Your task to perform on an android device: turn on bluetooth scan Image 0: 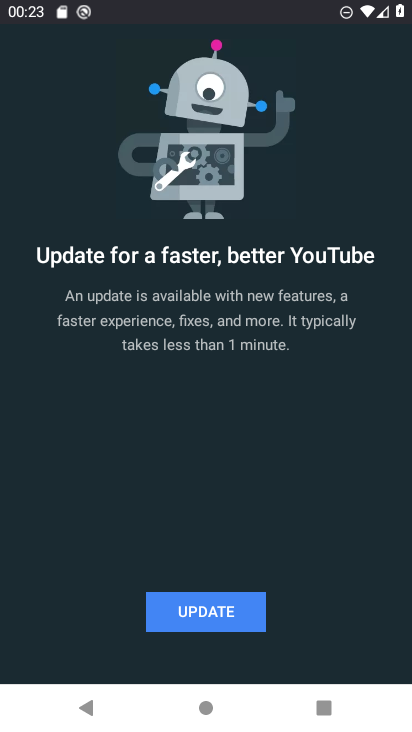
Step 0: press home button
Your task to perform on an android device: turn on bluetooth scan Image 1: 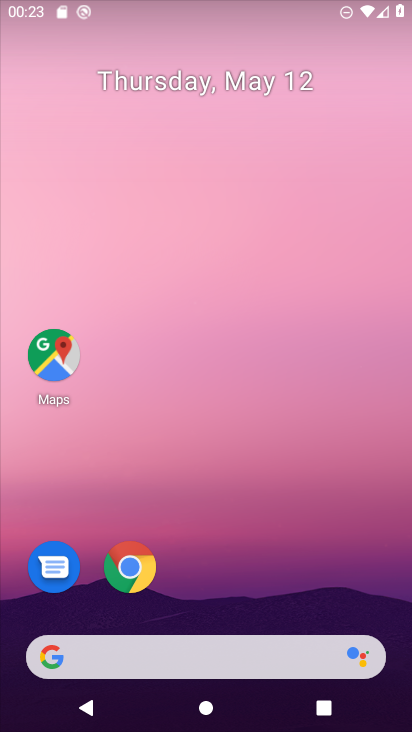
Step 1: drag from (264, 713) to (334, 171)
Your task to perform on an android device: turn on bluetooth scan Image 2: 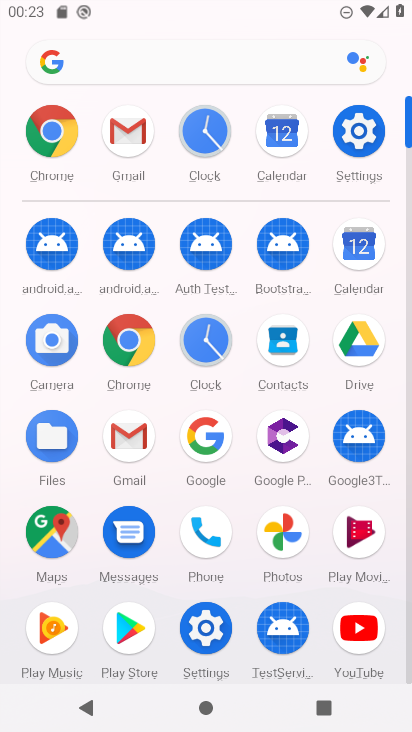
Step 2: click (389, 144)
Your task to perform on an android device: turn on bluetooth scan Image 3: 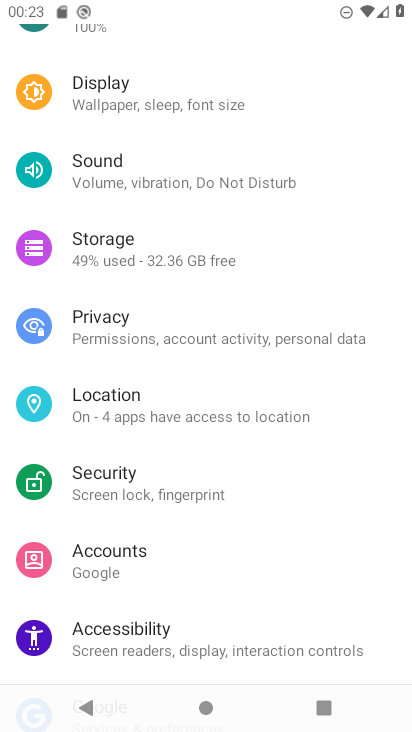
Step 3: drag from (313, 237) to (330, 559)
Your task to perform on an android device: turn on bluetooth scan Image 4: 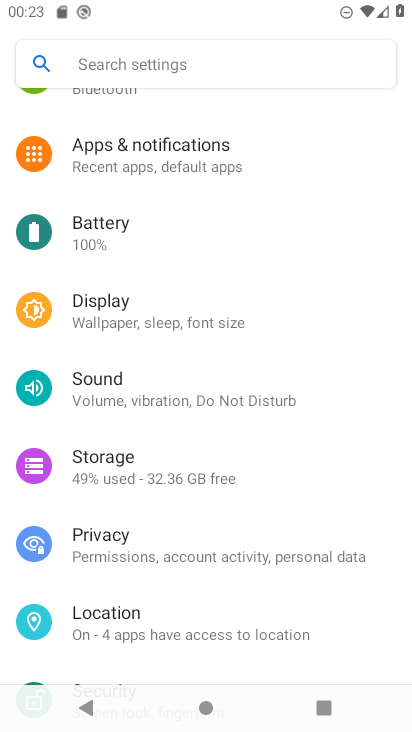
Step 4: click (357, 485)
Your task to perform on an android device: turn on bluetooth scan Image 5: 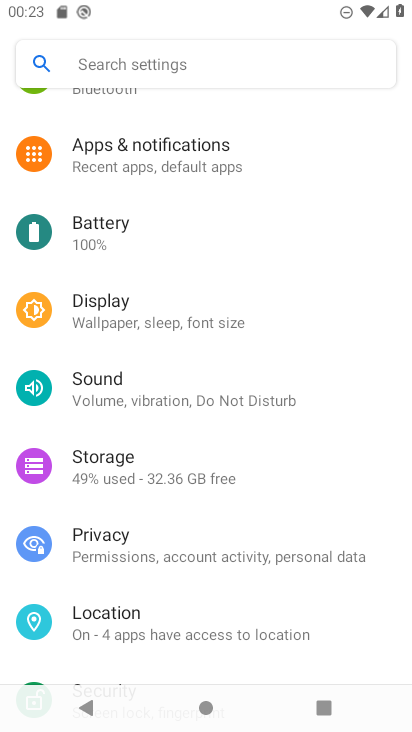
Step 5: click (206, 619)
Your task to perform on an android device: turn on bluetooth scan Image 6: 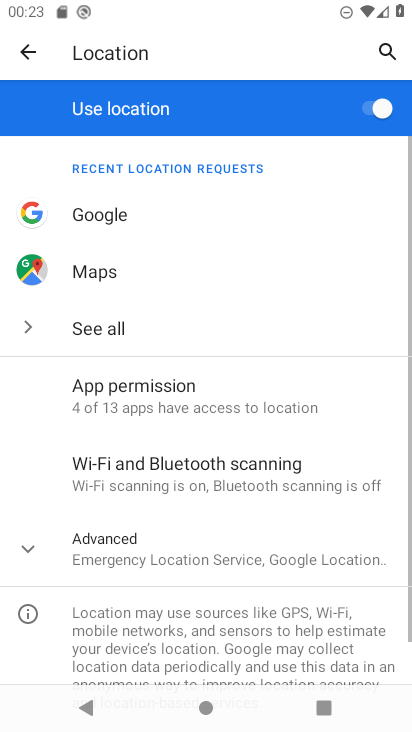
Step 6: click (327, 479)
Your task to perform on an android device: turn on bluetooth scan Image 7: 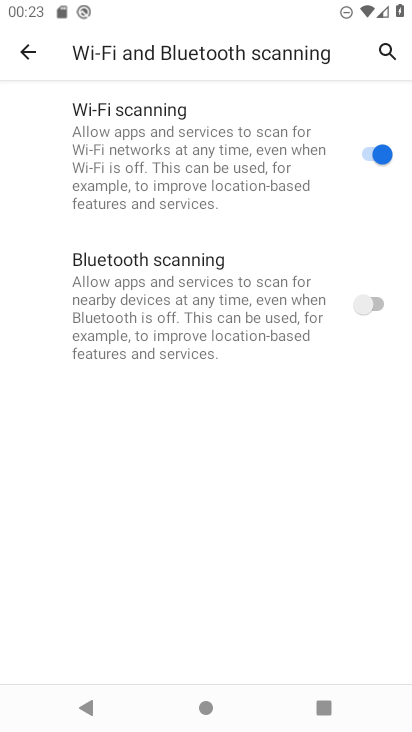
Step 7: click (371, 303)
Your task to perform on an android device: turn on bluetooth scan Image 8: 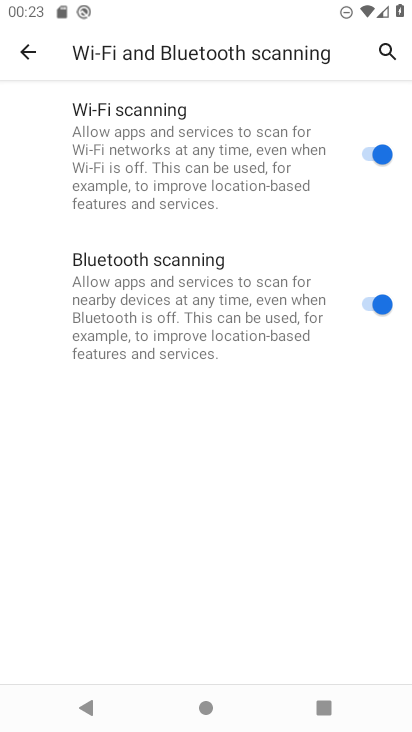
Step 8: task complete